Your task to perform on an android device: Open ESPN.com Image 0: 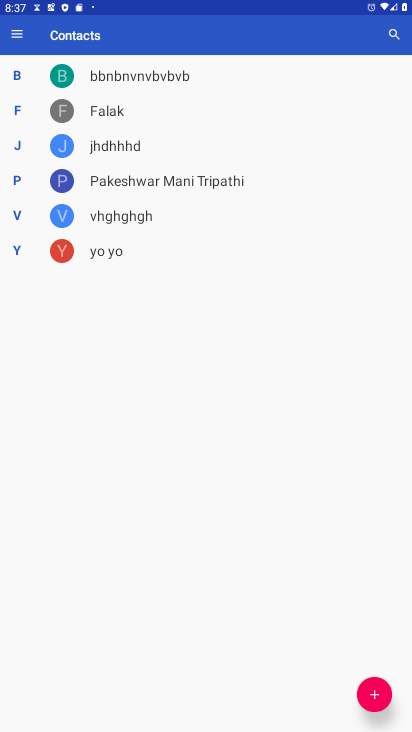
Step 0: press home button
Your task to perform on an android device: Open ESPN.com Image 1: 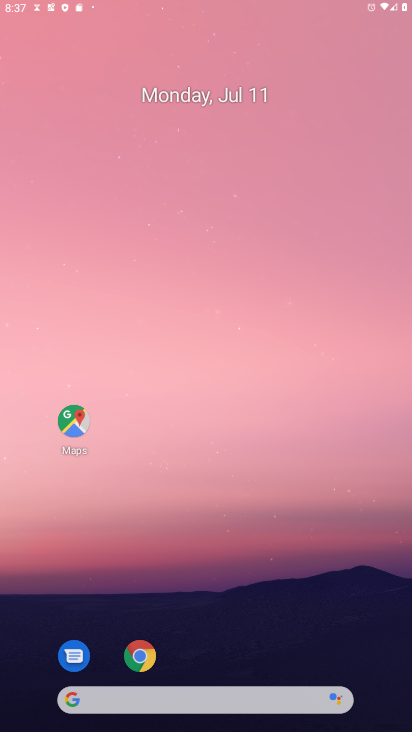
Step 1: drag from (210, 539) to (214, 89)
Your task to perform on an android device: Open ESPN.com Image 2: 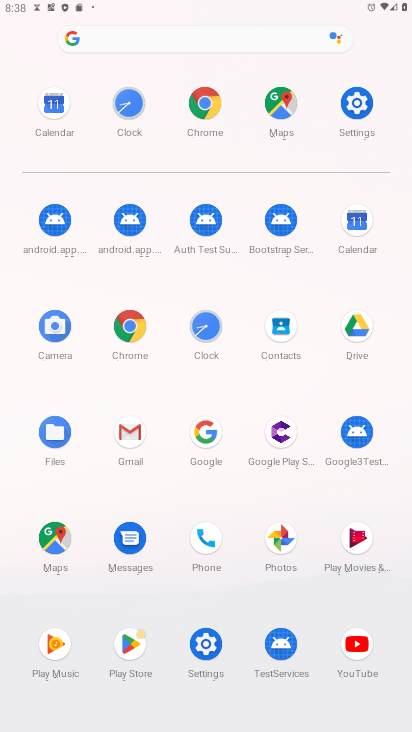
Step 2: click (204, 105)
Your task to perform on an android device: Open ESPN.com Image 3: 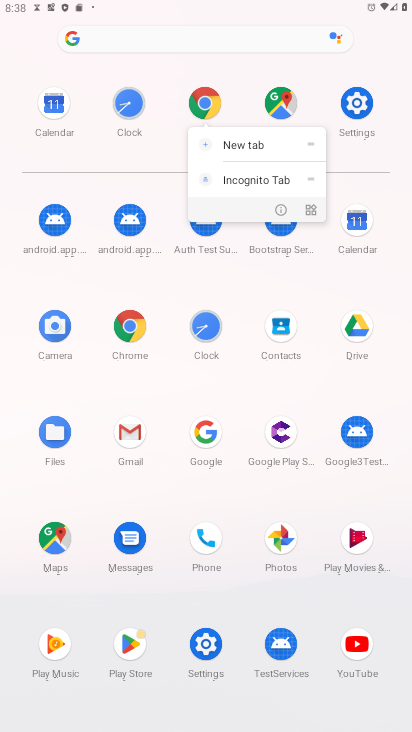
Step 3: click (282, 214)
Your task to perform on an android device: Open ESPN.com Image 4: 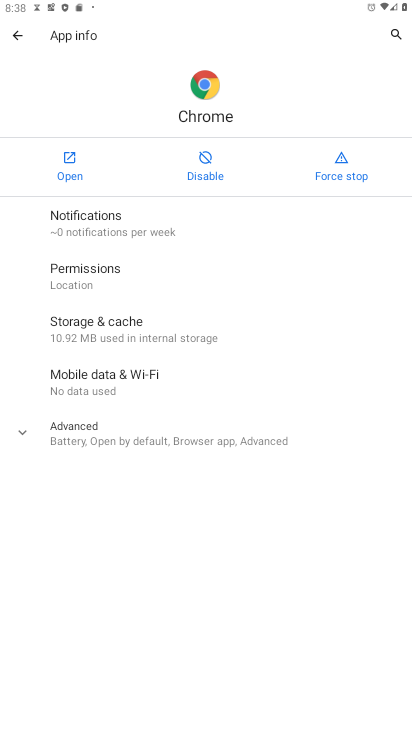
Step 4: click (91, 182)
Your task to perform on an android device: Open ESPN.com Image 5: 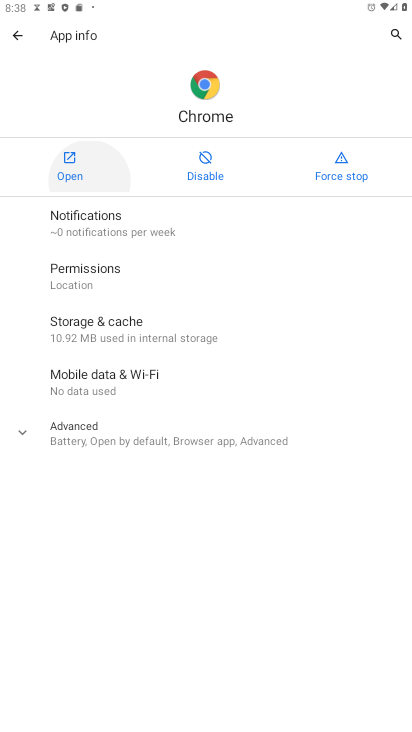
Step 5: click (83, 175)
Your task to perform on an android device: Open ESPN.com Image 6: 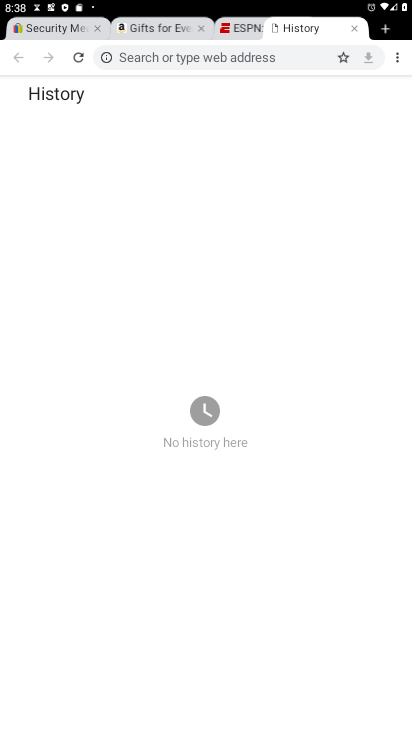
Step 6: drag from (196, 529) to (229, 152)
Your task to perform on an android device: Open ESPN.com Image 7: 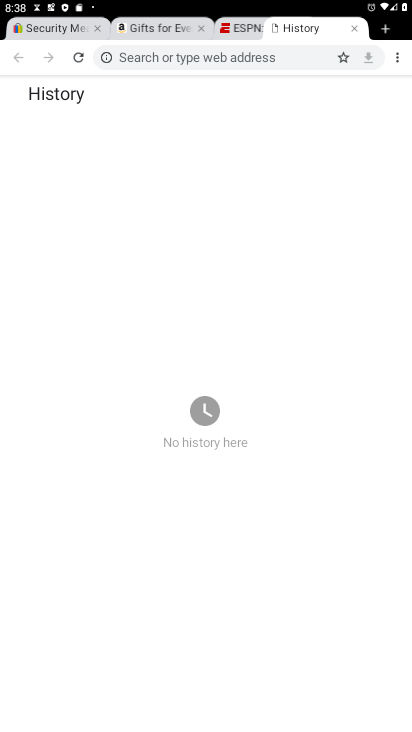
Step 7: drag from (180, 496) to (190, 219)
Your task to perform on an android device: Open ESPN.com Image 8: 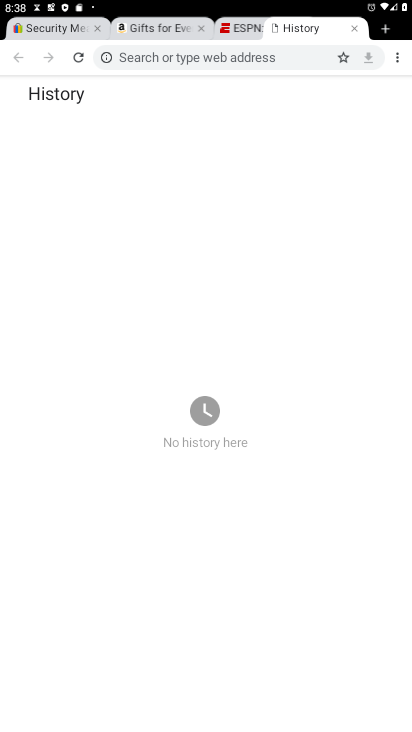
Step 8: click (145, 50)
Your task to perform on an android device: Open ESPN.com Image 9: 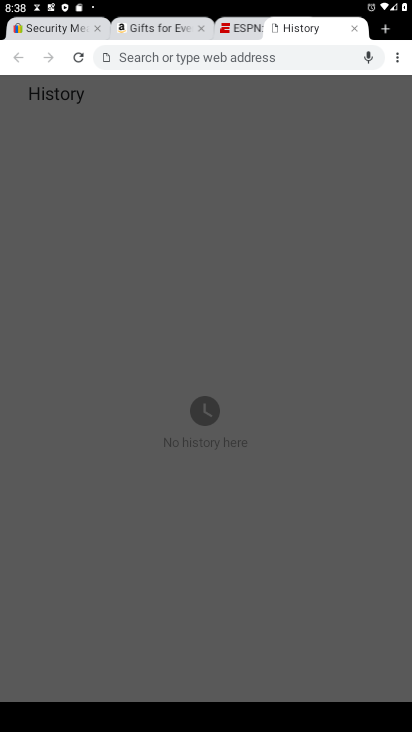
Step 9: click (164, 240)
Your task to perform on an android device: Open ESPN.com Image 10: 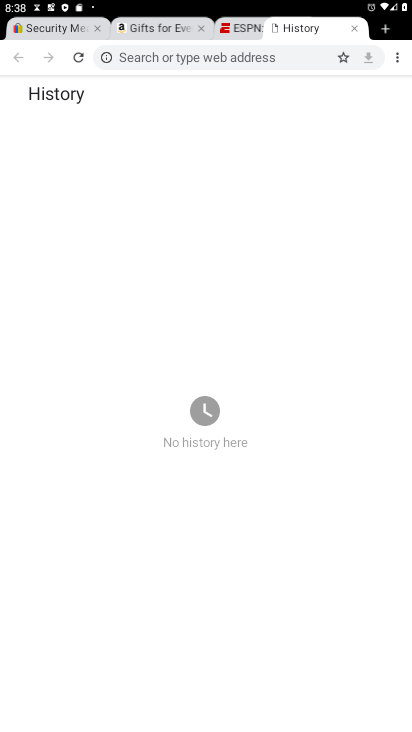
Step 10: click (235, 17)
Your task to perform on an android device: Open ESPN.com Image 11: 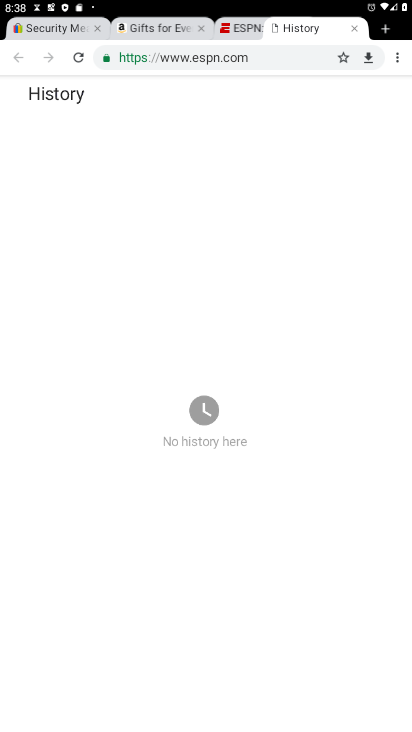
Step 11: click (233, 24)
Your task to perform on an android device: Open ESPN.com Image 12: 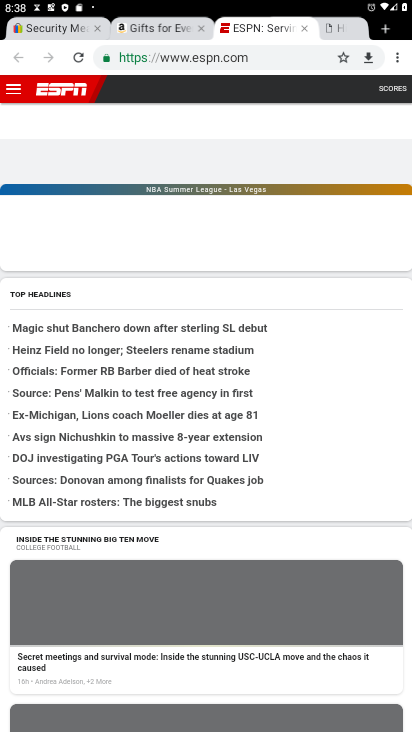
Step 12: task complete